Your task to perform on an android device: turn on data saver in the chrome app Image 0: 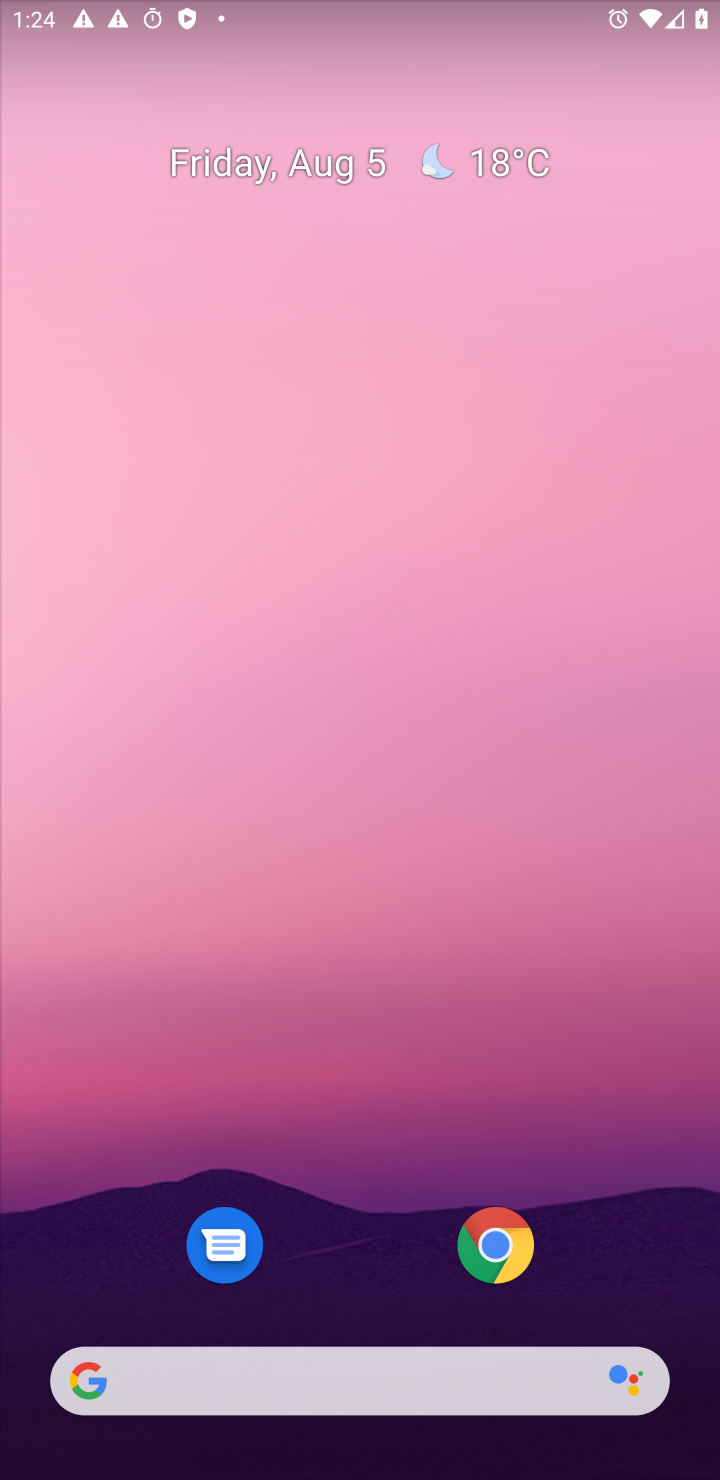
Step 0: click (504, 1246)
Your task to perform on an android device: turn on data saver in the chrome app Image 1: 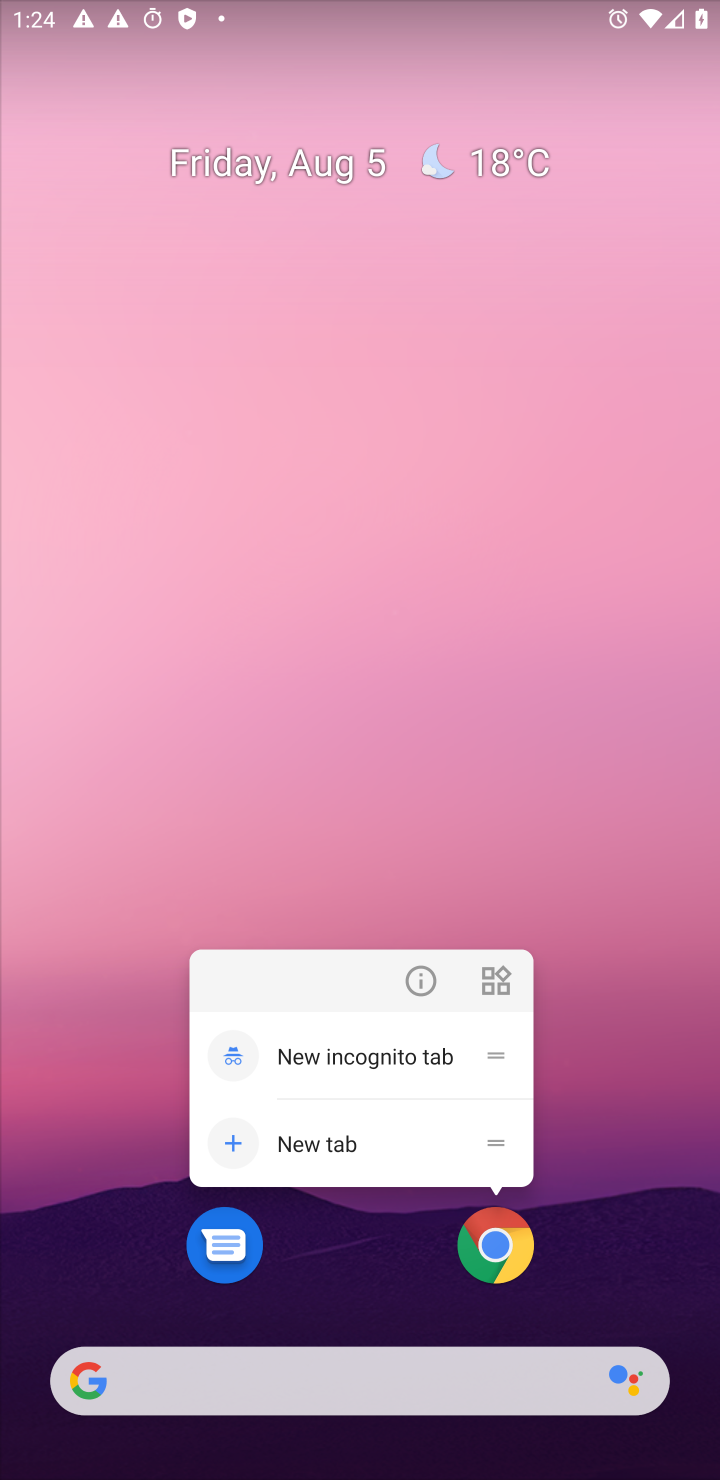
Step 1: click (602, 1266)
Your task to perform on an android device: turn on data saver in the chrome app Image 2: 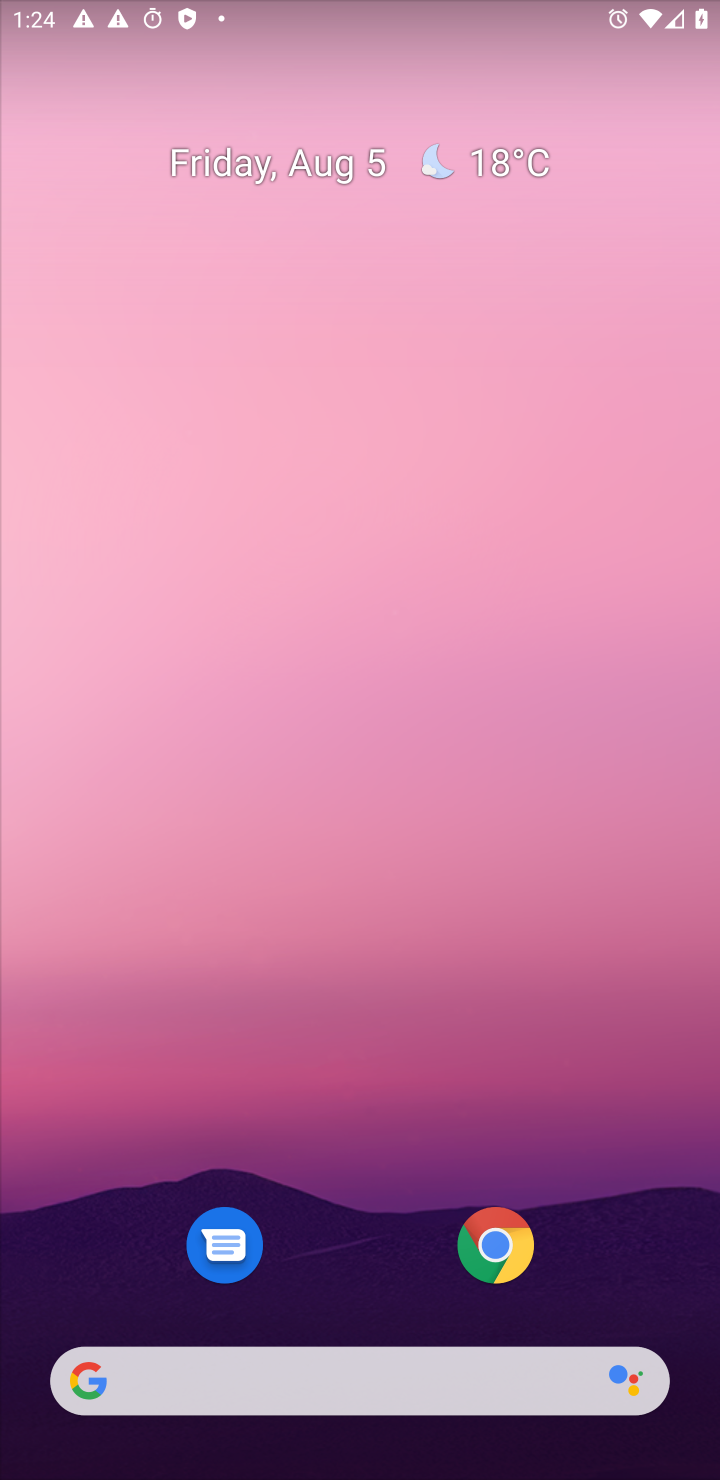
Step 2: click (515, 1253)
Your task to perform on an android device: turn on data saver in the chrome app Image 3: 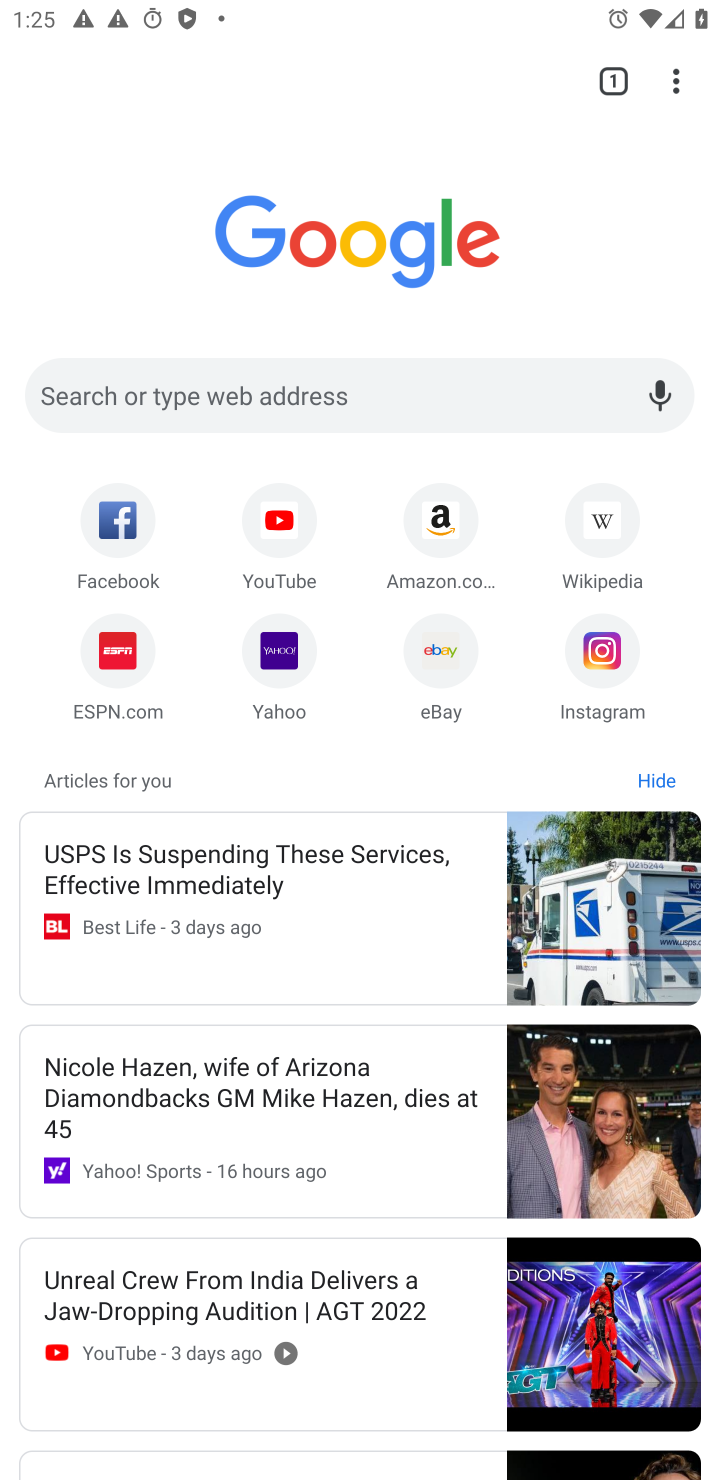
Step 3: drag from (666, 93) to (386, 786)
Your task to perform on an android device: turn on data saver in the chrome app Image 4: 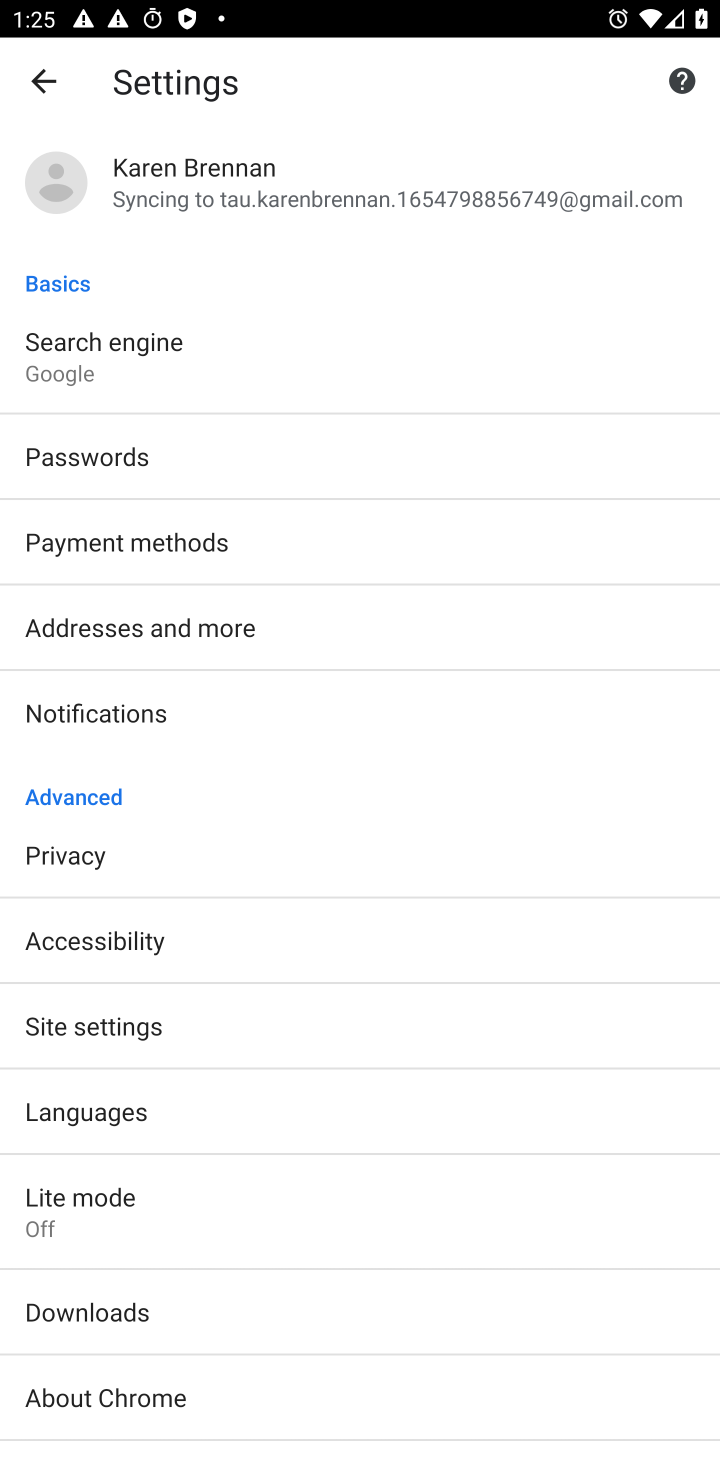
Step 4: click (66, 1211)
Your task to perform on an android device: turn on data saver in the chrome app Image 5: 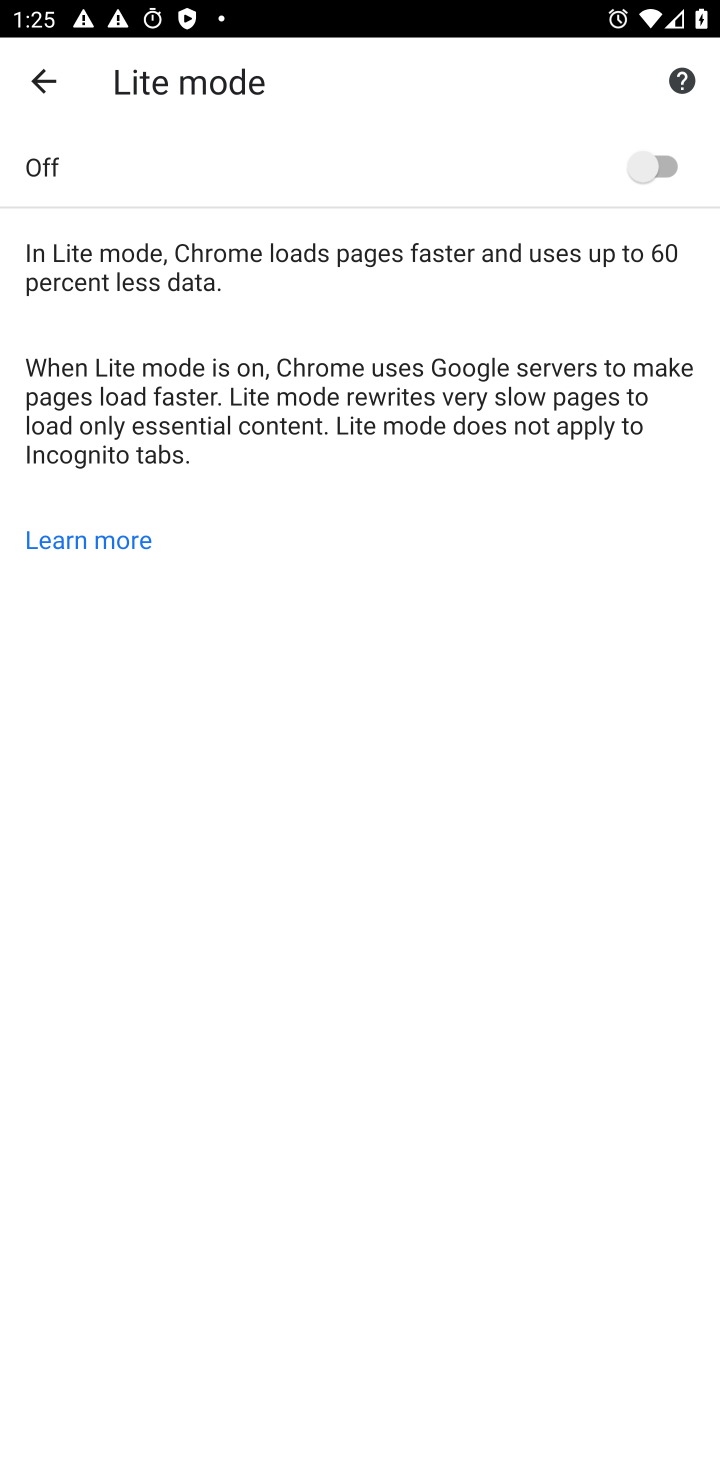
Step 5: click (641, 167)
Your task to perform on an android device: turn on data saver in the chrome app Image 6: 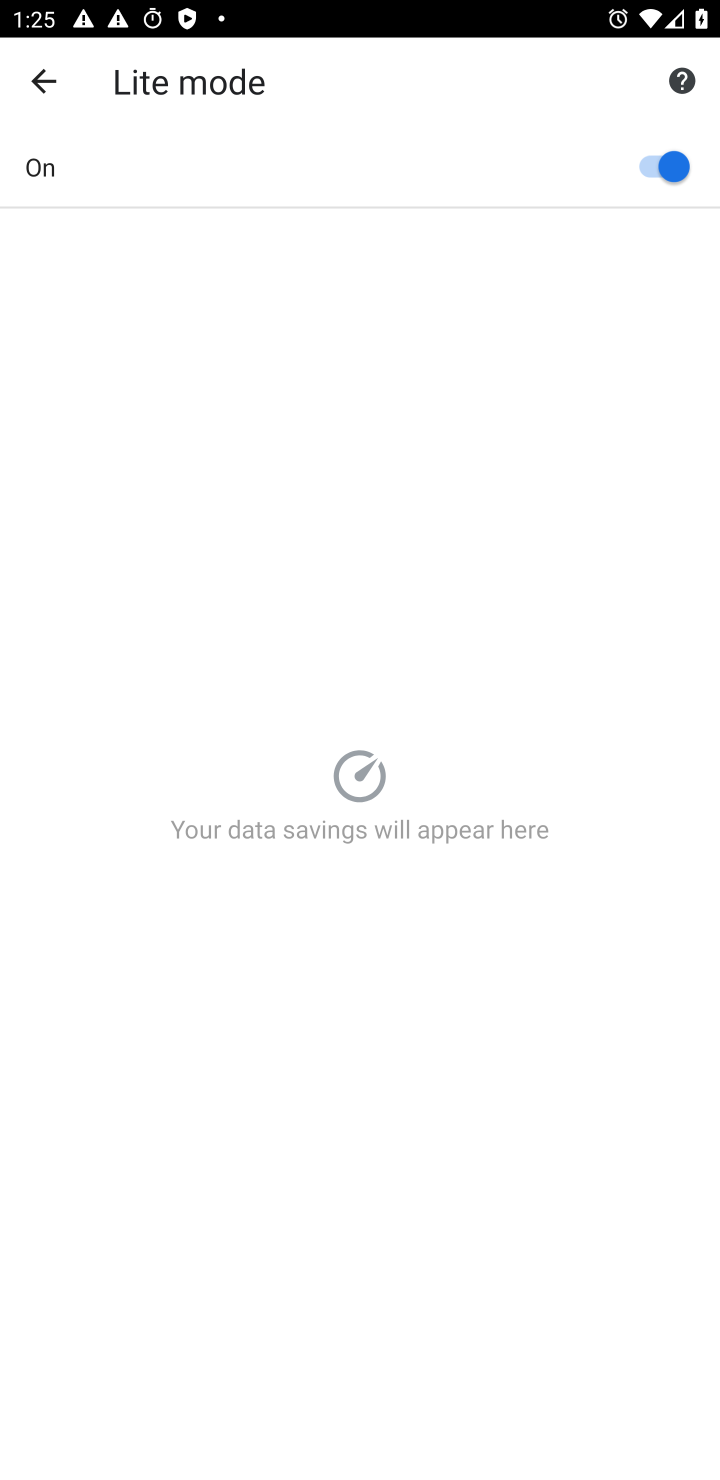
Step 6: task complete